Your task to perform on an android device: Open my contact list Image 0: 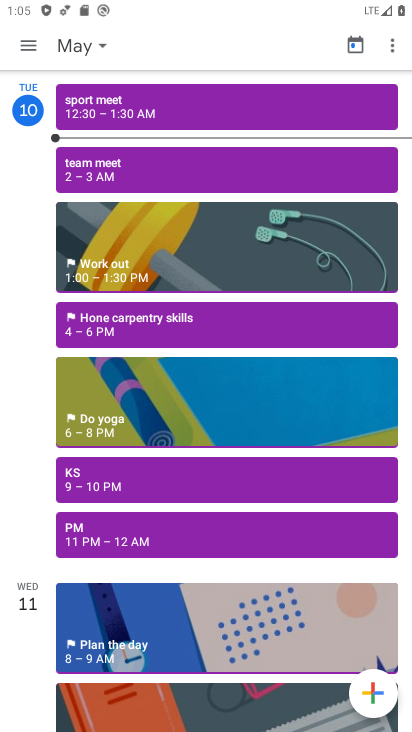
Step 0: press home button
Your task to perform on an android device: Open my contact list Image 1: 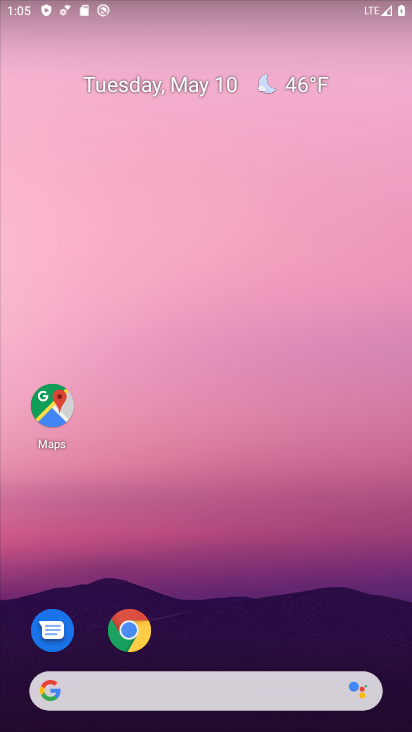
Step 1: drag from (210, 652) to (118, 19)
Your task to perform on an android device: Open my contact list Image 2: 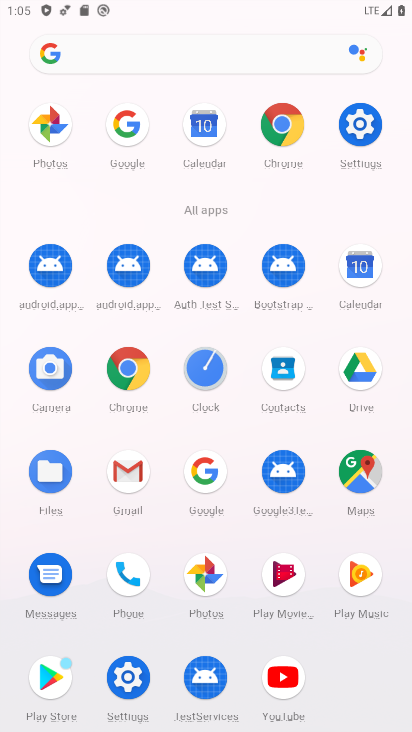
Step 2: click (125, 576)
Your task to perform on an android device: Open my contact list Image 3: 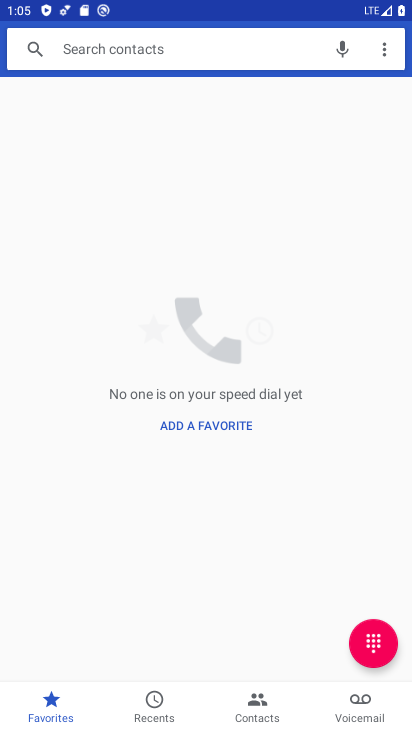
Step 3: click (264, 703)
Your task to perform on an android device: Open my contact list Image 4: 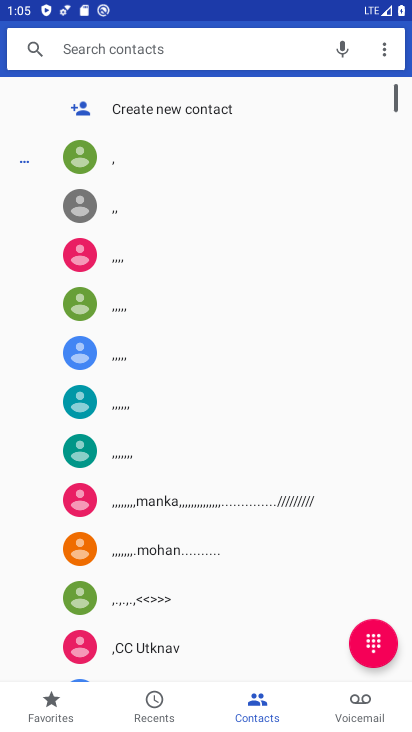
Step 4: task complete